Your task to perform on an android device: Go to internet settings Image 0: 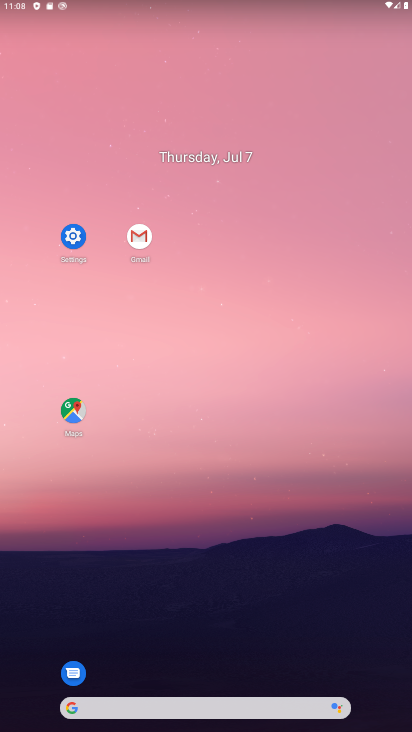
Step 0: click (71, 246)
Your task to perform on an android device: Go to internet settings Image 1: 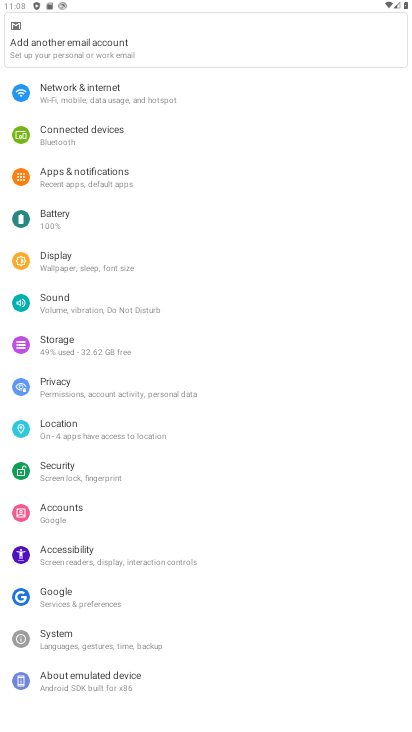
Step 1: click (128, 86)
Your task to perform on an android device: Go to internet settings Image 2: 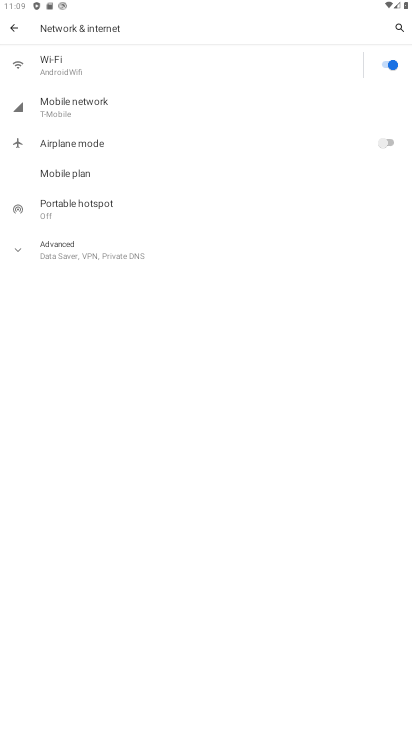
Step 2: click (111, 111)
Your task to perform on an android device: Go to internet settings Image 3: 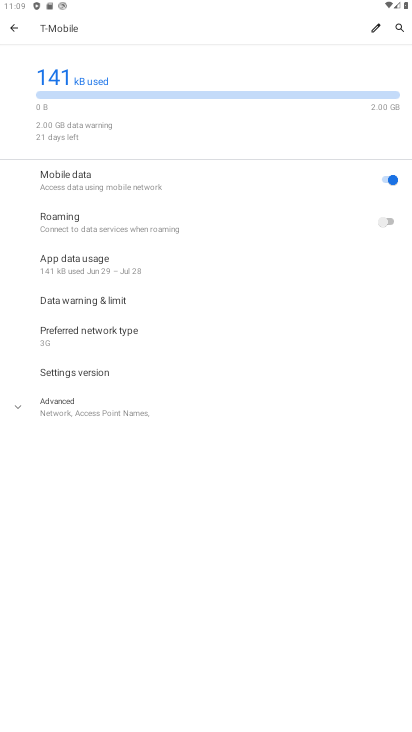
Step 3: task complete